Your task to perform on an android device: Go to eBay Image 0: 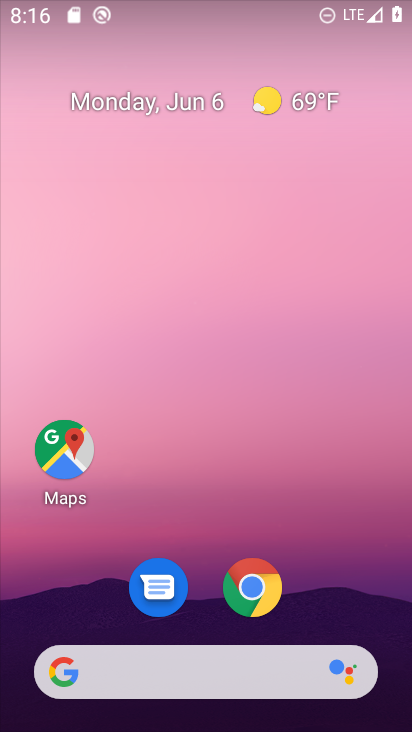
Step 0: click (254, 589)
Your task to perform on an android device: Go to eBay Image 1: 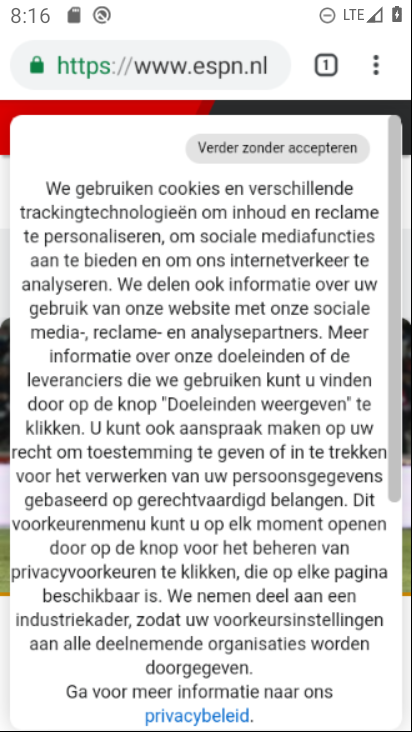
Step 1: click (199, 79)
Your task to perform on an android device: Go to eBay Image 2: 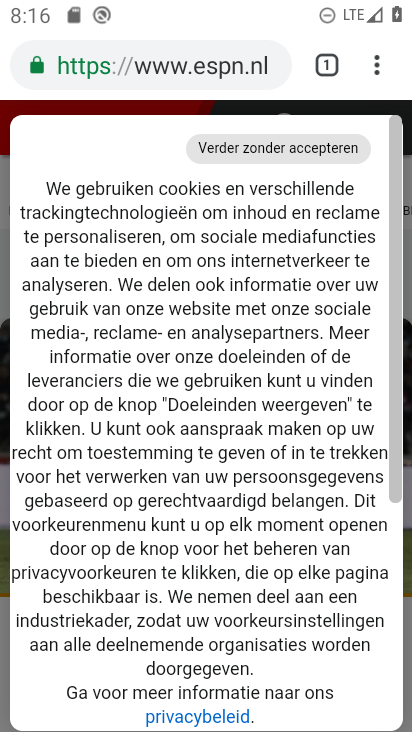
Step 2: click (205, 76)
Your task to perform on an android device: Go to eBay Image 3: 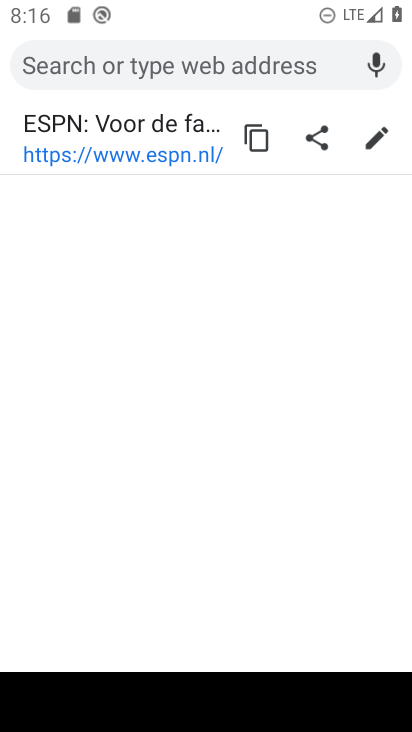
Step 3: type "ebay"
Your task to perform on an android device: Go to eBay Image 4: 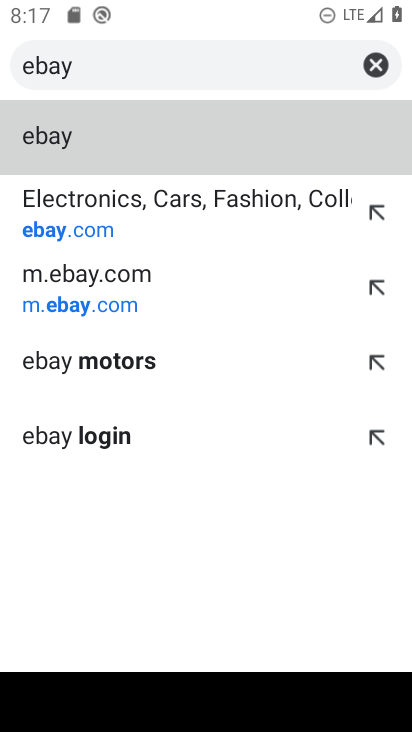
Step 4: click (73, 229)
Your task to perform on an android device: Go to eBay Image 5: 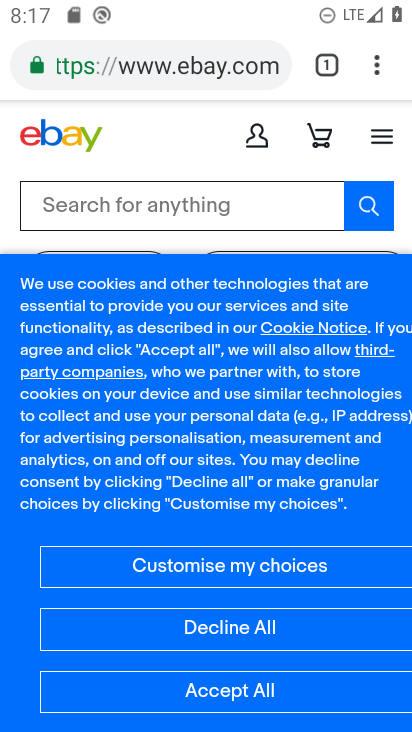
Step 5: task complete